Your task to perform on an android device: turn on data saver in the chrome app Image 0: 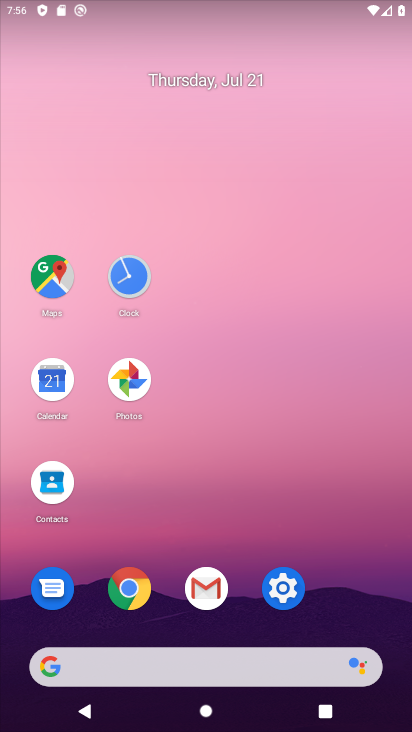
Step 0: click (122, 585)
Your task to perform on an android device: turn on data saver in the chrome app Image 1: 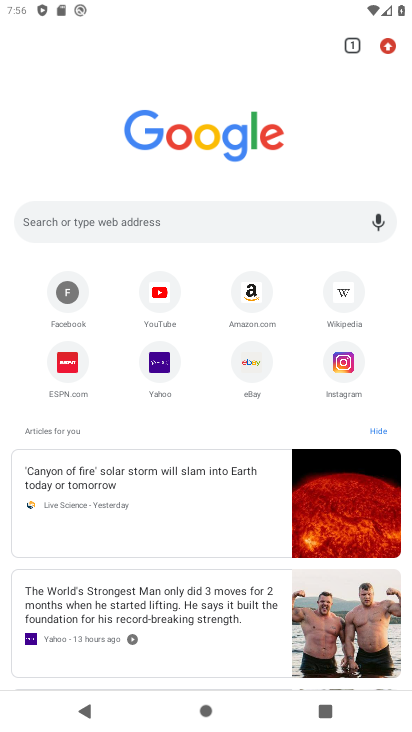
Step 1: click (390, 48)
Your task to perform on an android device: turn on data saver in the chrome app Image 2: 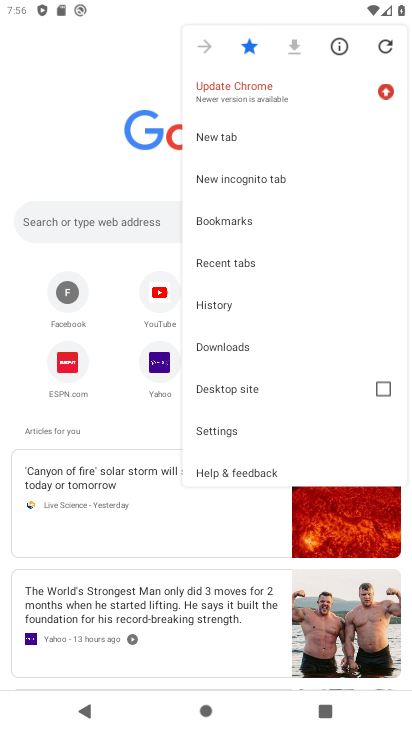
Step 2: click (219, 433)
Your task to perform on an android device: turn on data saver in the chrome app Image 3: 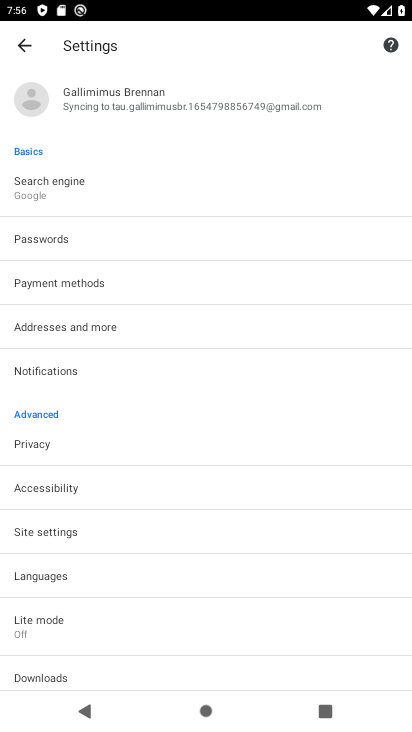
Step 3: drag from (190, 627) to (162, 374)
Your task to perform on an android device: turn on data saver in the chrome app Image 4: 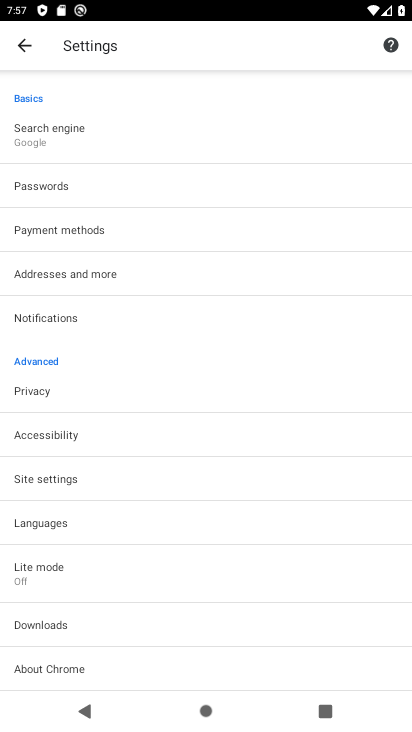
Step 4: click (54, 568)
Your task to perform on an android device: turn on data saver in the chrome app Image 5: 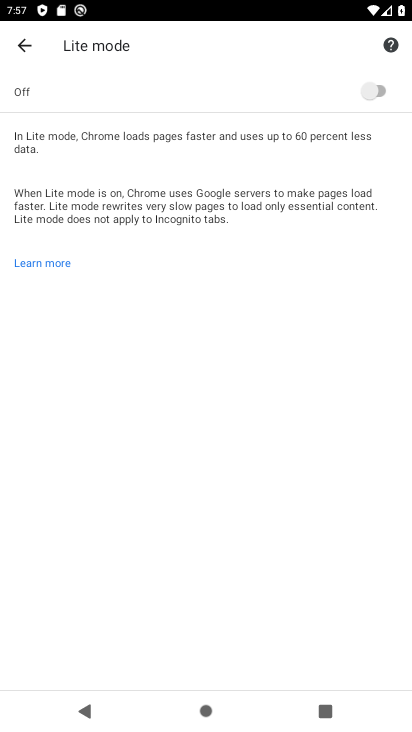
Step 5: click (364, 93)
Your task to perform on an android device: turn on data saver in the chrome app Image 6: 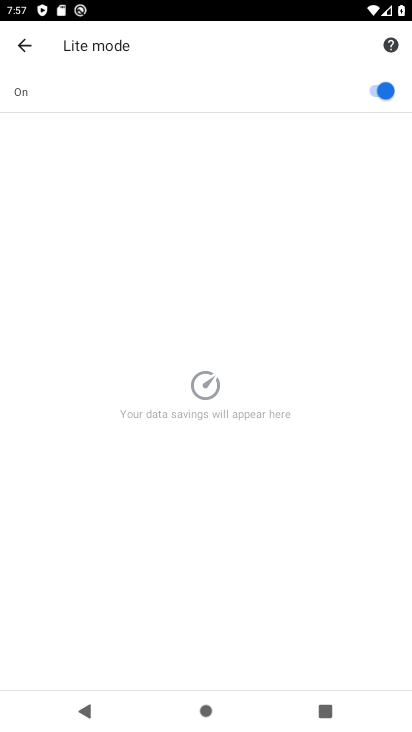
Step 6: task complete